Your task to perform on an android device: When is my next meeting? Image 0: 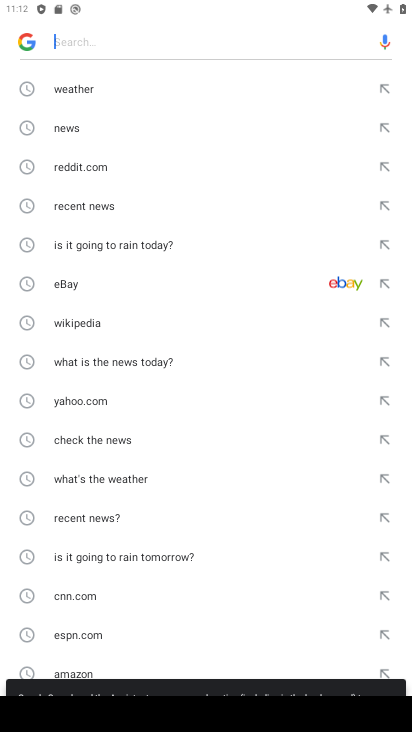
Step 0: press back button
Your task to perform on an android device: When is my next meeting? Image 1: 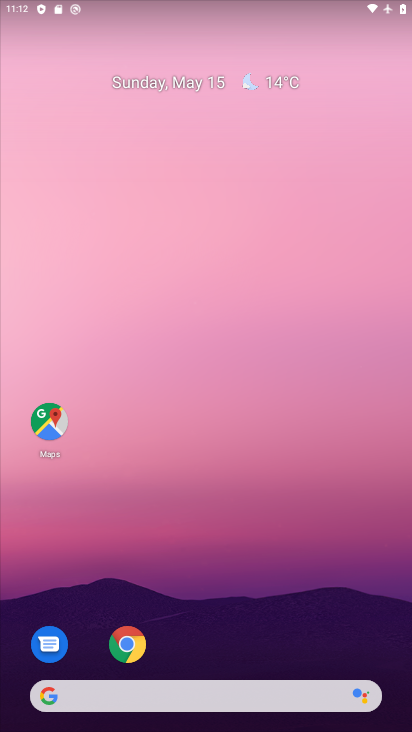
Step 1: drag from (158, 477) to (147, 445)
Your task to perform on an android device: When is my next meeting? Image 2: 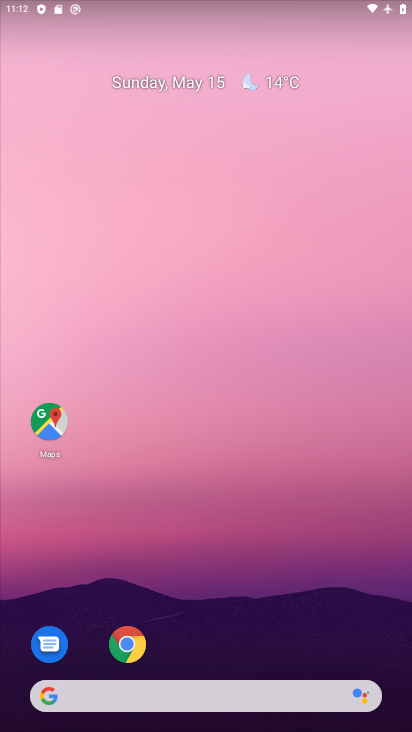
Step 2: drag from (69, 190) to (77, 154)
Your task to perform on an android device: When is my next meeting? Image 3: 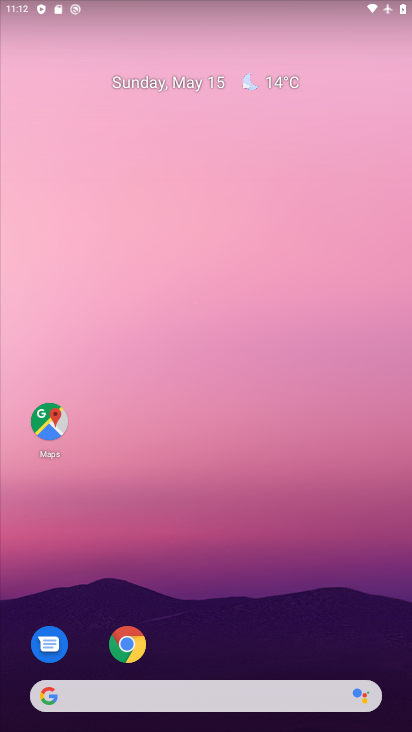
Step 3: drag from (261, 626) to (252, 95)
Your task to perform on an android device: When is my next meeting? Image 4: 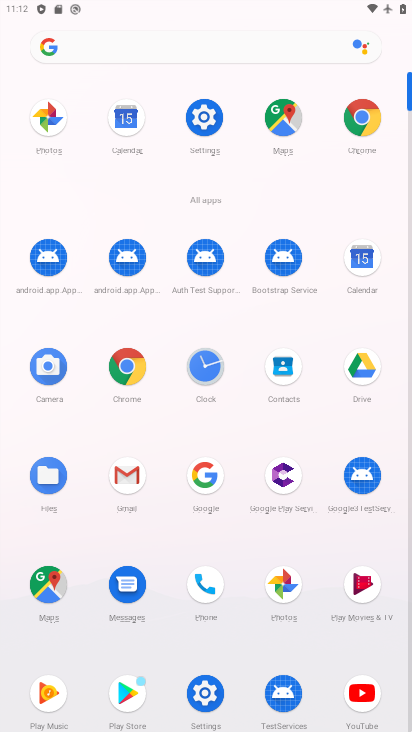
Step 4: click (365, 263)
Your task to perform on an android device: When is my next meeting? Image 5: 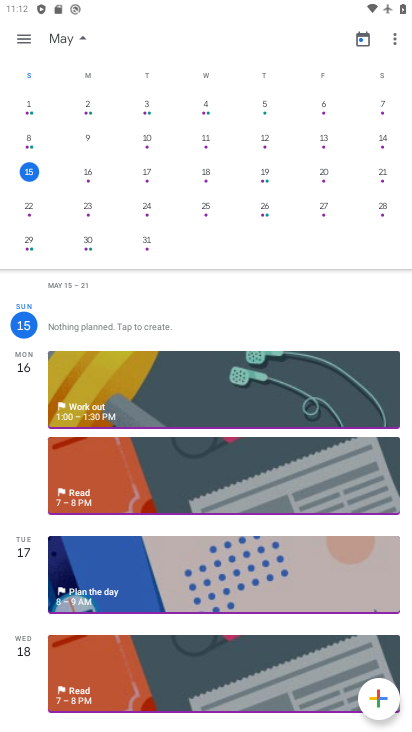
Step 5: click (87, 395)
Your task to perform on an android device: When is my next meeting? Image 6: 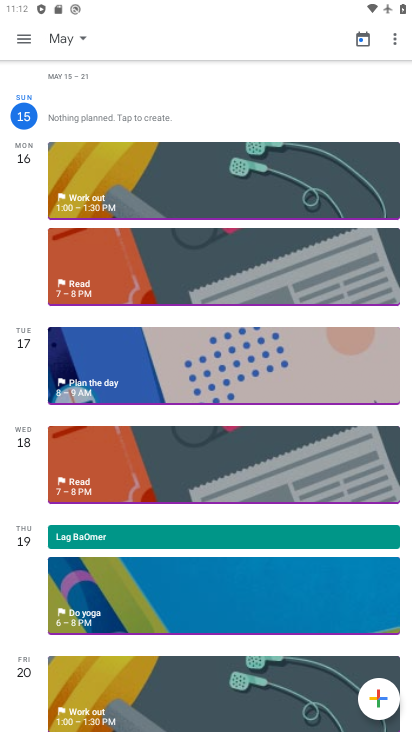
Step 6: click (96, 180)
Your task to perform on an android device: When is my next meeting? Image 7: 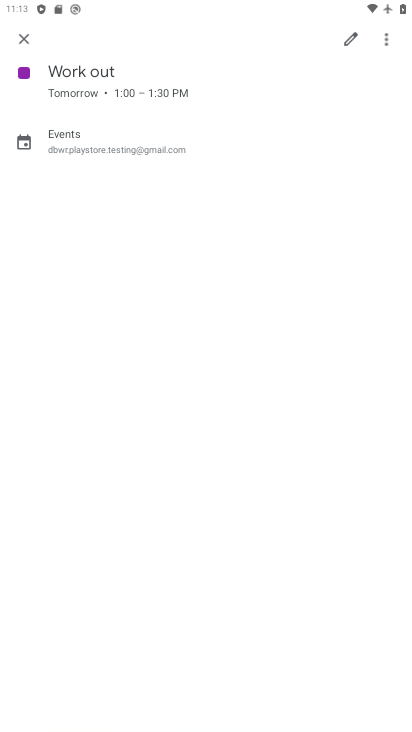
Step 7: task complete